Your task to perform on an android device: open chrome and create a bookmark for the current page Image 0: 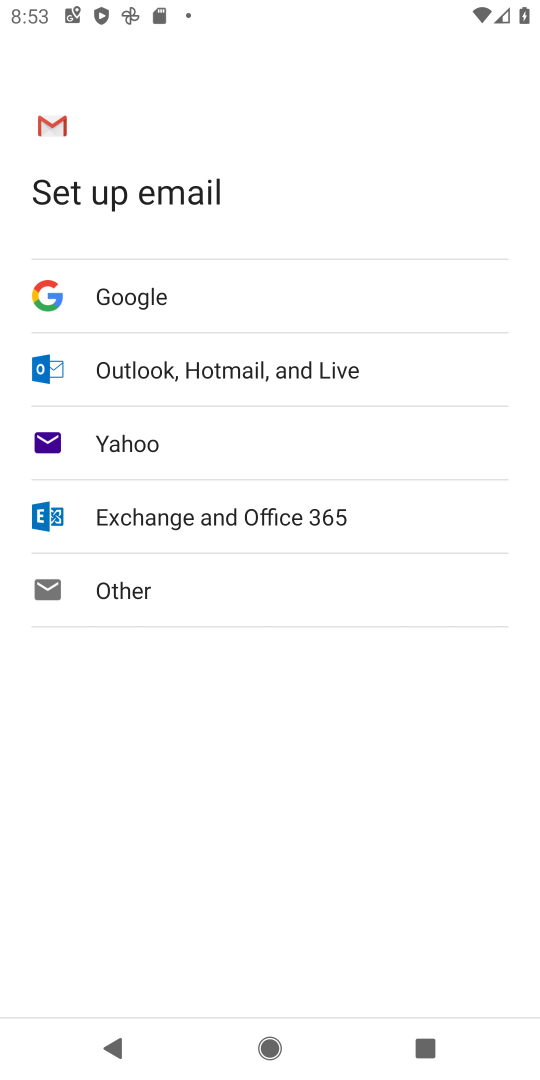
Step 0: press home button
Your task to perform on an android device: open chrome and create a bookmark for the current page Image 1: 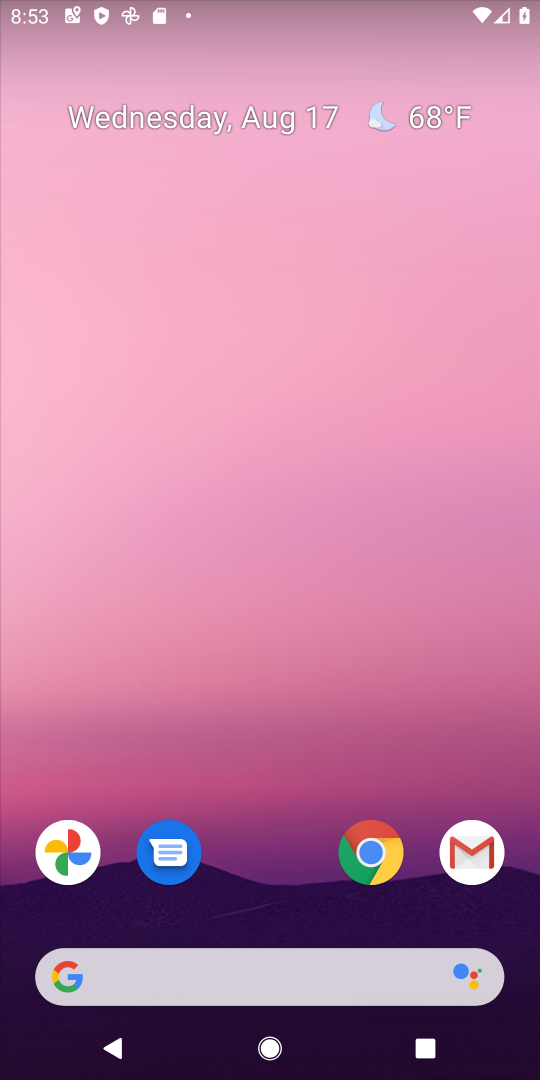
Step 1: click (375, 867)
Your task to perform on an android device: open chrome and create a bookmark for the current page Image 2: 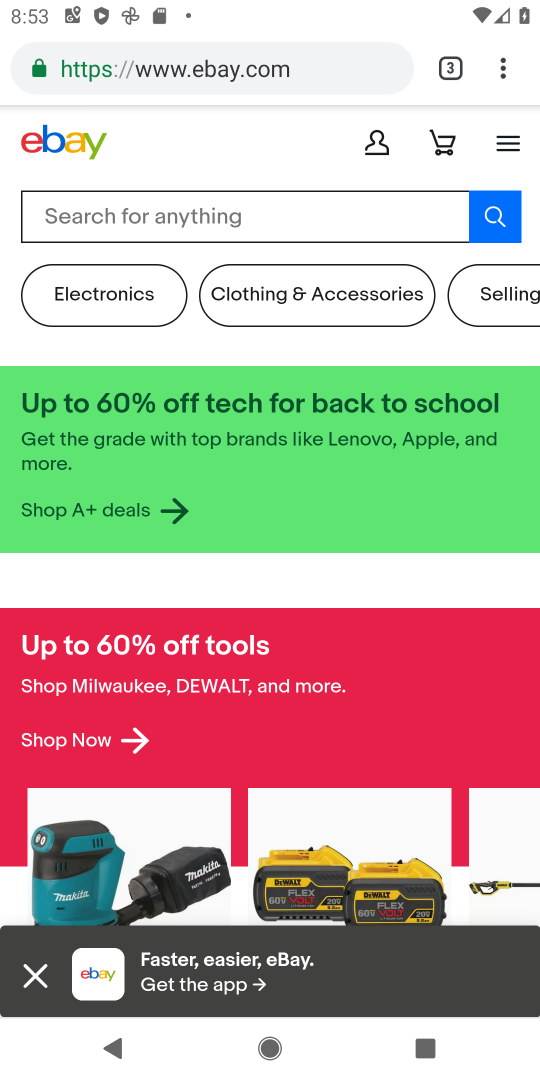
Step 2: click (498, 50)
Your task to perform on an android device: open chrome and create a bookmark for the current page Image 3: 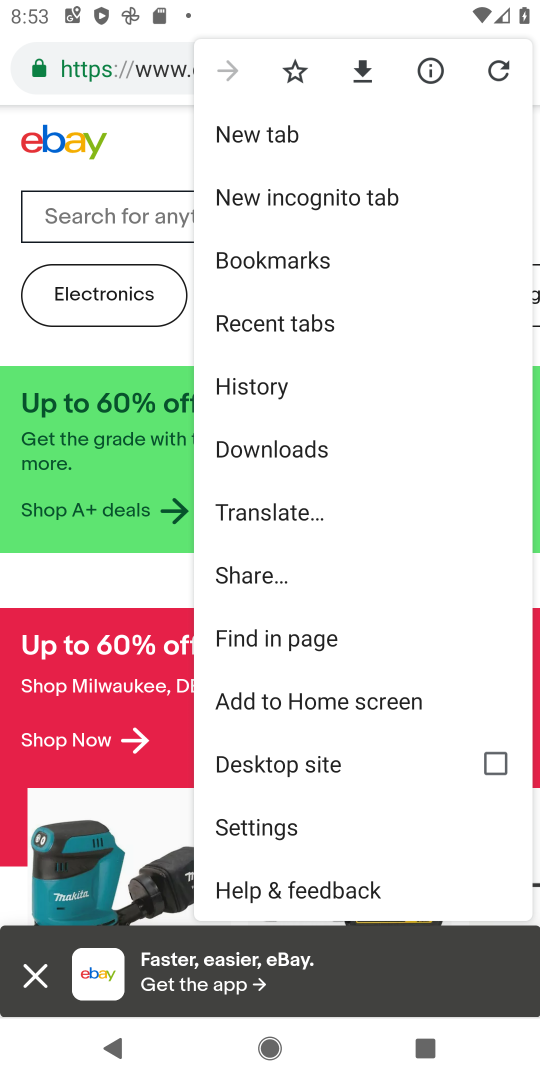
Step 3: click (295, 74)
Your task to perform on an android device: open chrome and create a bookmark for the current page Image 4: 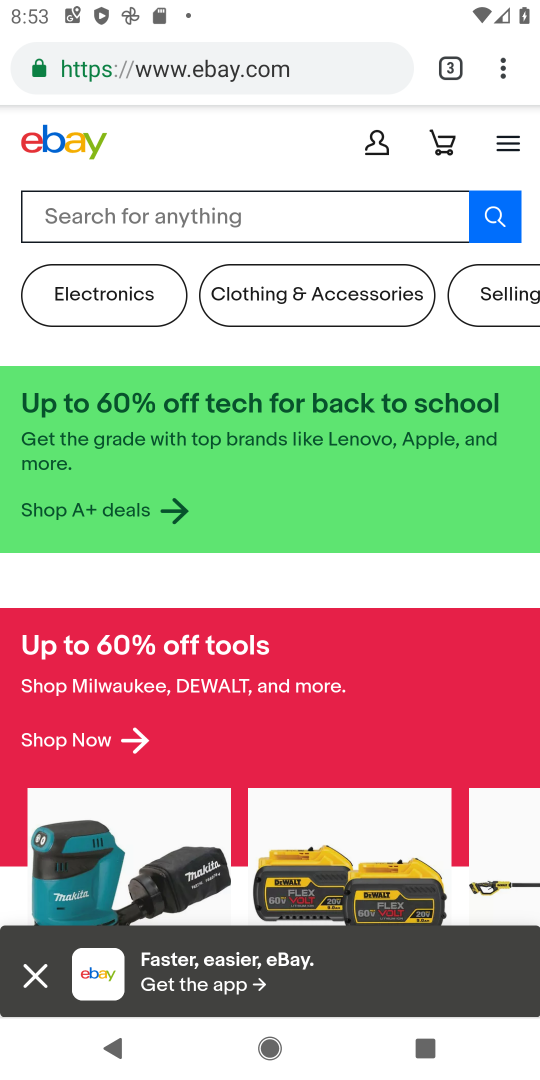
Step 4: task complete